Your task to perform on an android device: Open the stopwatch Image 0: 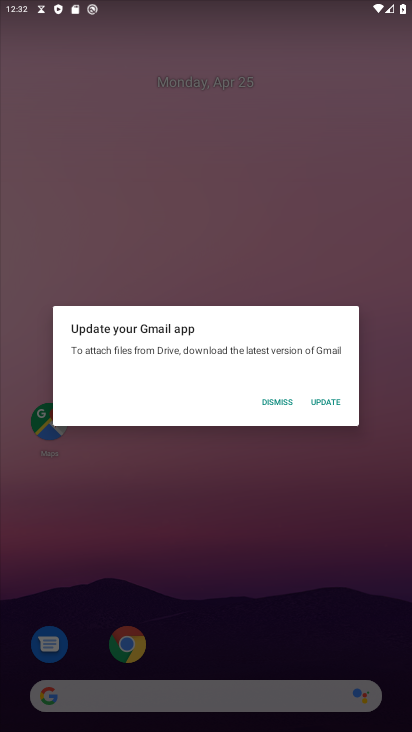
Step 0: press home button
Your task to perform on an android device: Open the stopwatch Image 1: 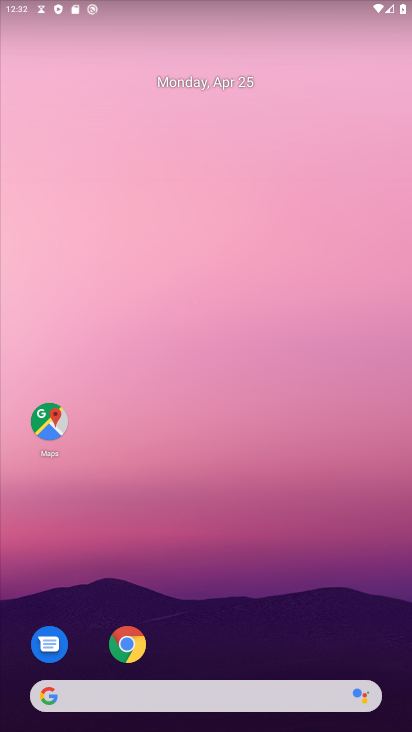
Step 1: drag from (315, 640) to (345, 27)
Your task to perform on an android device: Open the stopwatch Image 2: 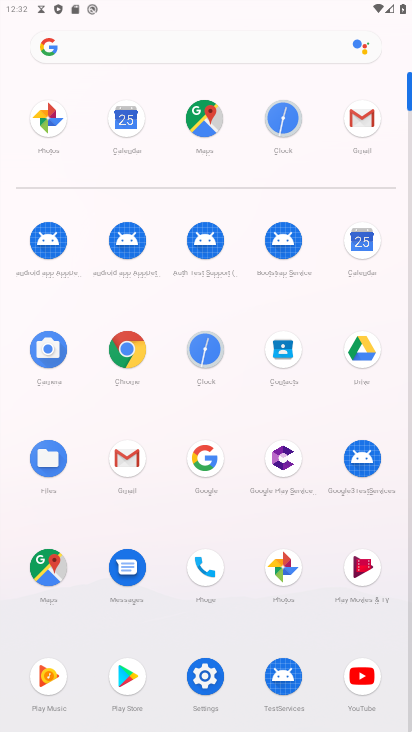
Step 2: click (283, 123)
Your task to perform on an android device: Open the stopwatch Image 3: 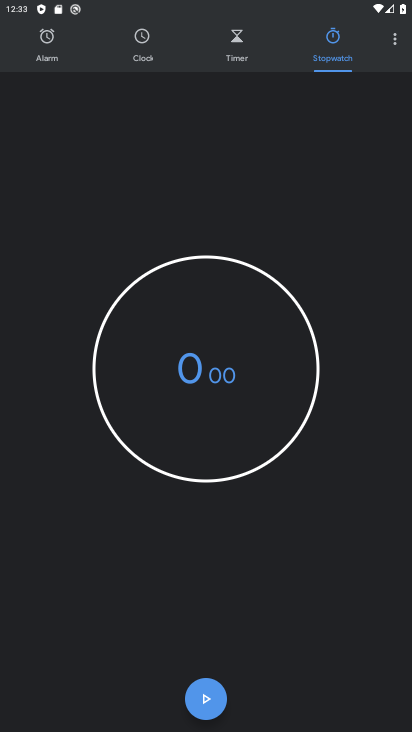
Step 3: task complete